Your task to perform on an android device: toggle data saver in the chrome app Image 0: 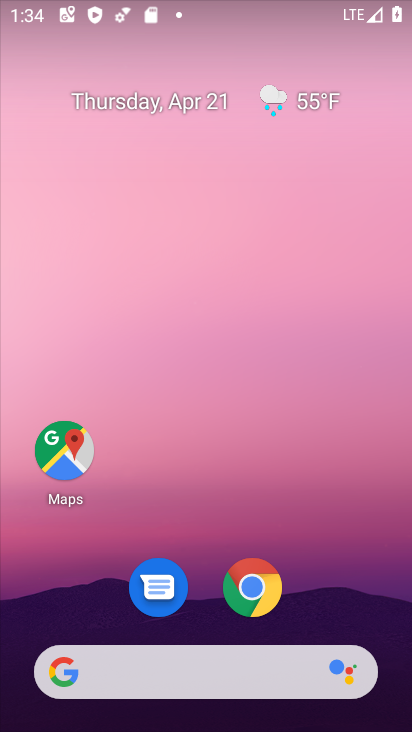
Step 0: click (254, 584)
Your task to perform on an android device: toggle data saver in the chrome app Image 1: 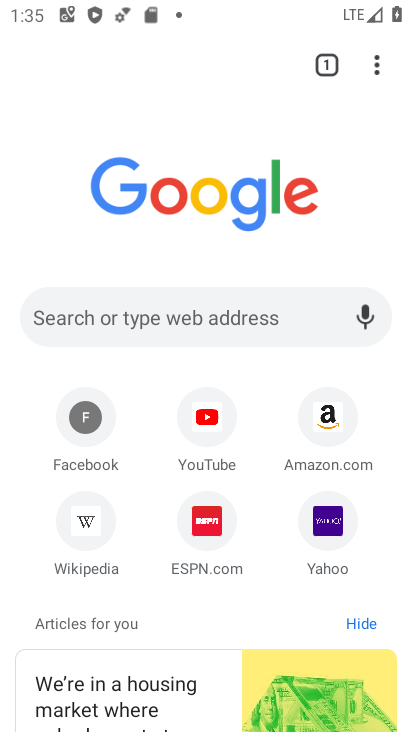
Step 1: click (376, 70)
Your task to perform on an android device: toggle data saver in the chrome app Image 2: 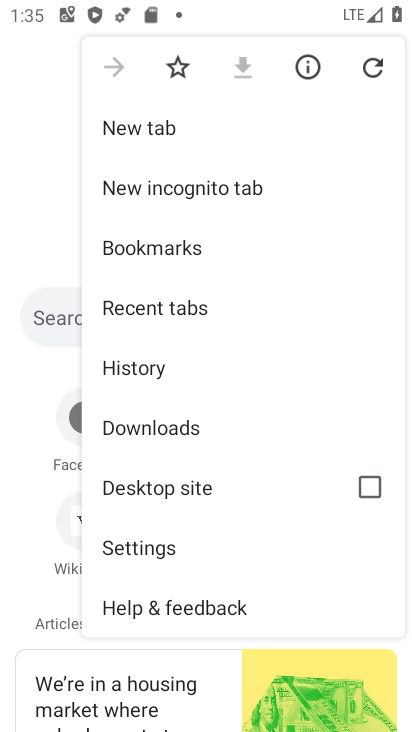
Step 2: click (131, 551)
Your task to perform on an android device: toggle data saver in the chrome app Image 3: 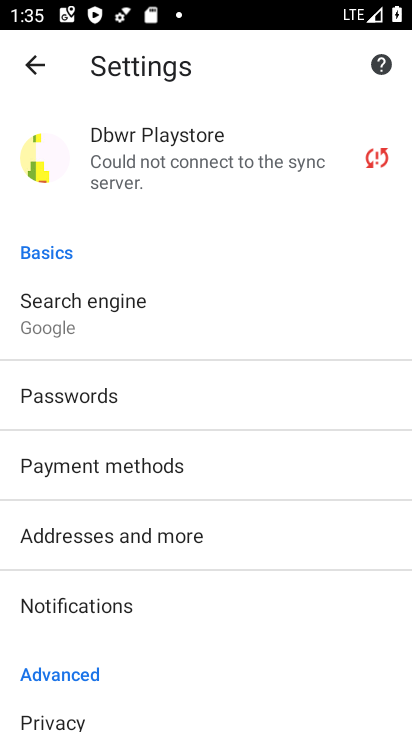
Step 3: drag from (235, 573) to (249, 354)
Your task to perform on an android device: toggle data saver in the chrome app Image 4: 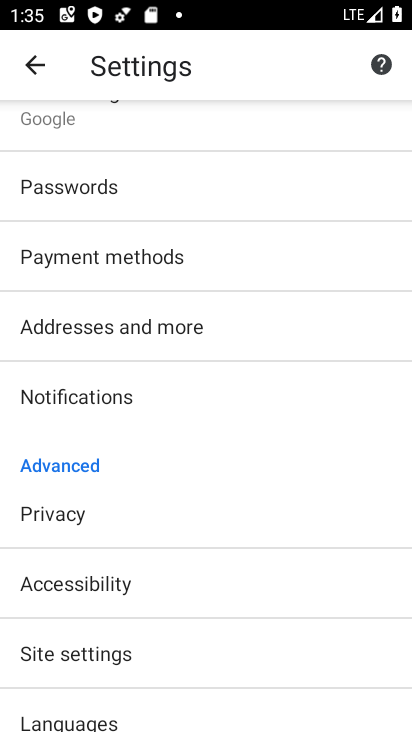
Step 4: drag from (156, 583) to (153, 367)
Your task to perform on an android device: toggle data saver in the chrome app Image 5: 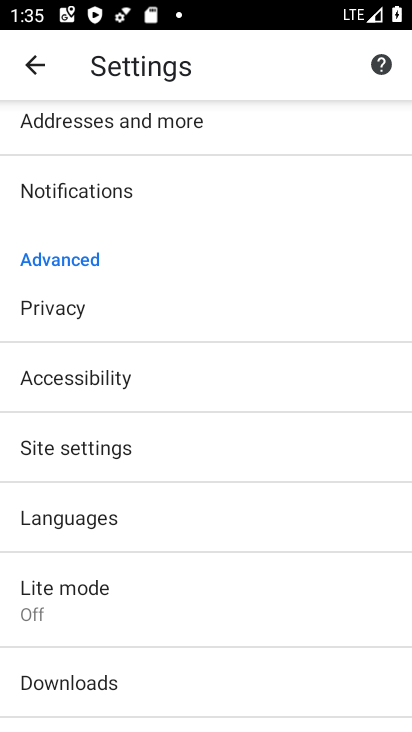
Step 5: click (73, 617)
Your task to perform on an android device: toggle data saver in the chrome app Image 6: 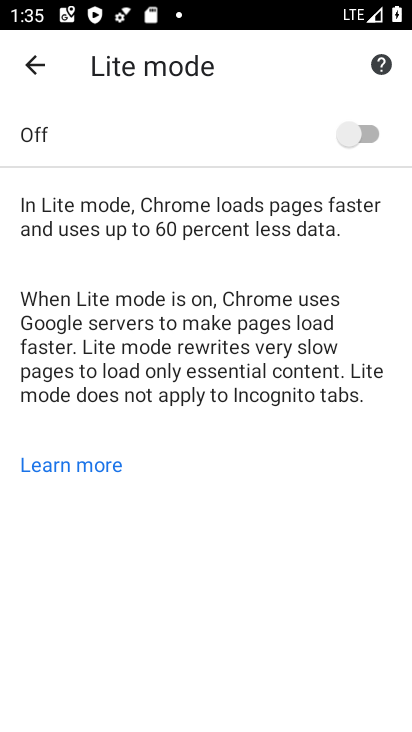
Step 6: click (366, 132)
Your task to perform on an android device: toggle data saver in the chrome app Image 7: 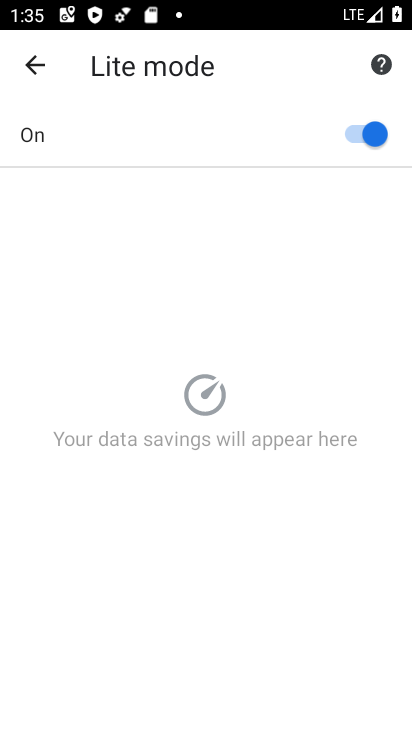
Step 7: task complete